Your task to perform on an android device: Open Google Chrome and click the shortcut for Amazon.com Image 0: 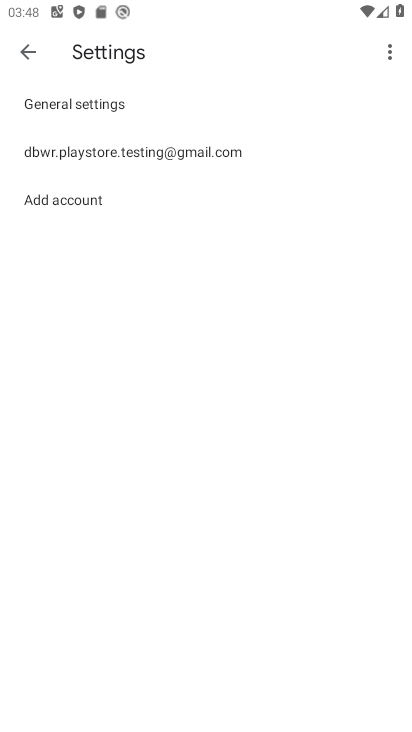
Step 0: press home button
Your task to perform on an android device: Open Google Chrome and click the shortcut for Amazon.com Image 1: 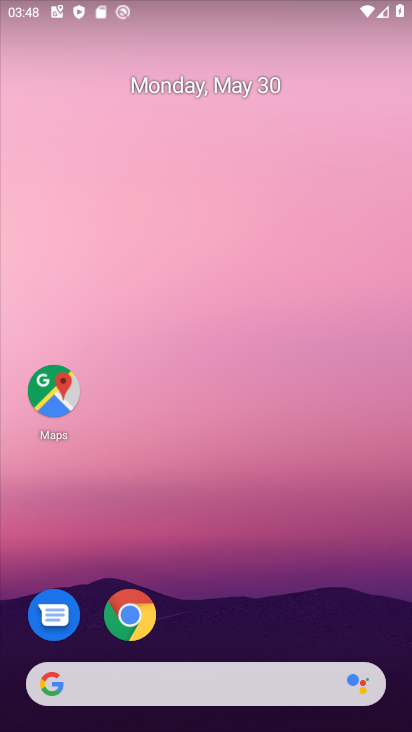
Step 1: click (131, 614)
Your task to perform on an android device: Open Google Chrome and click the shortcut for Amazon.com Image 2: 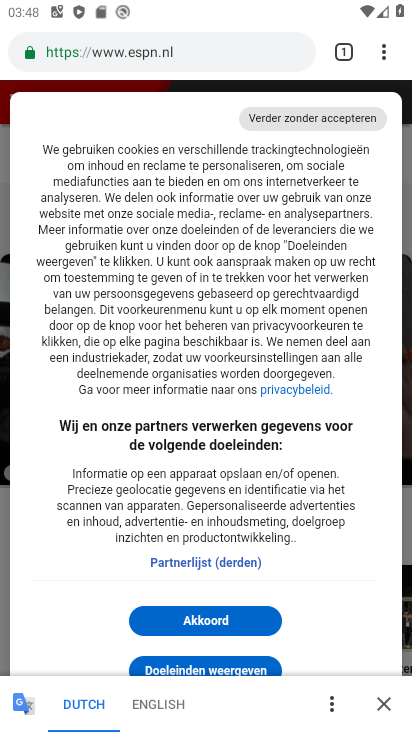
Step 2: click (265, 58)
Your task to perform on an android device: Open Google Chrome and click the shortcut for Amazon.com Image 3: 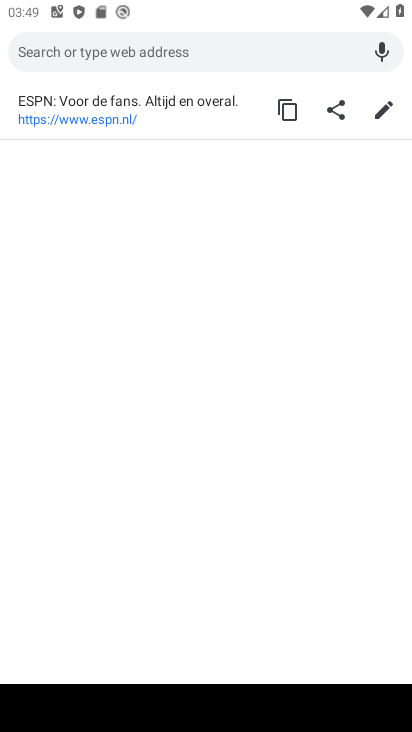
Step 3: type "Amazon.com"
Your task to perform on an android device: Open Google Chrome and click the shortcut for Amazon.com Image 4: 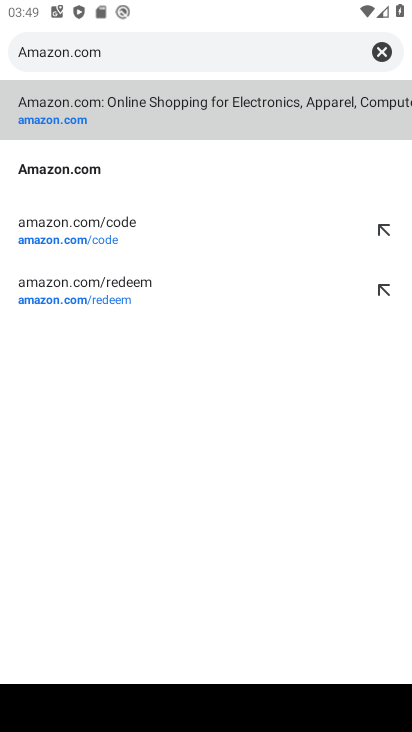
Step 4: click (72, 166)
Your task to perform on an android device: Open Google Chrome and click the shortcut for Amazon.com Image 5: 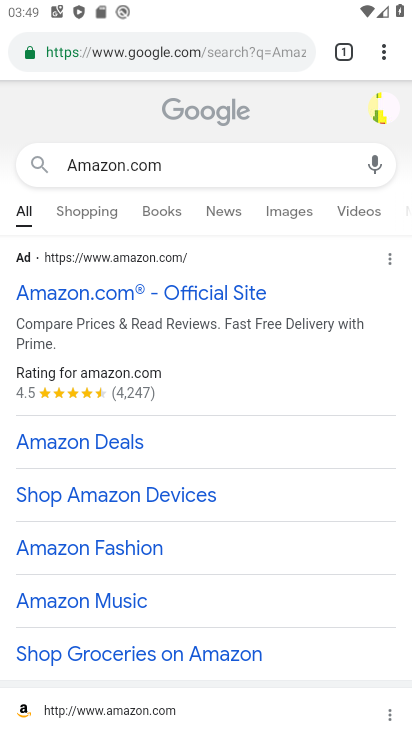
Step 5: click (114, 305)
Your task to perform on an android device: Open Google Chrome and click the shortcut for Amazon.com Image 6: 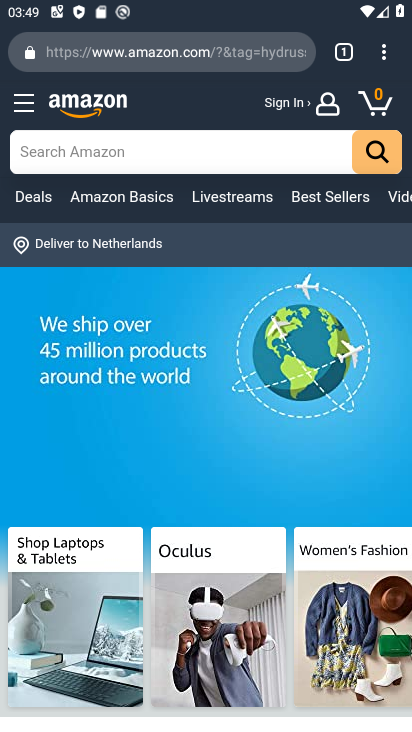
Step 6: click (384, 53)
Your task to perform on an android device: Open Google Chrome and click the shortcut for Amazon.com Image 7: 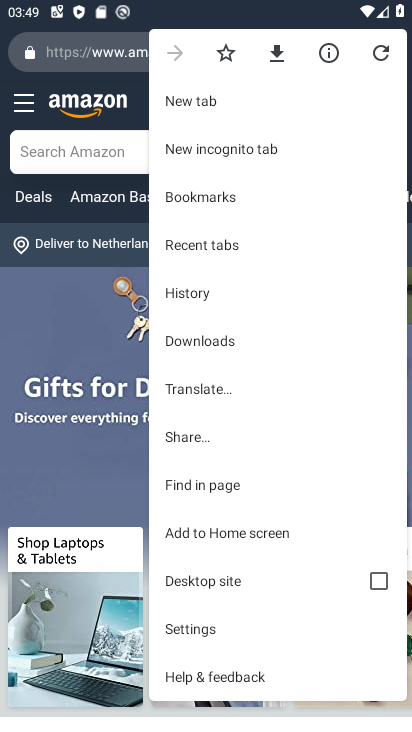
Step 7: click (229, 531)
Your task to perform on an android device: Open Google Chrome and click the shortcut for Amazon.com Image 8: 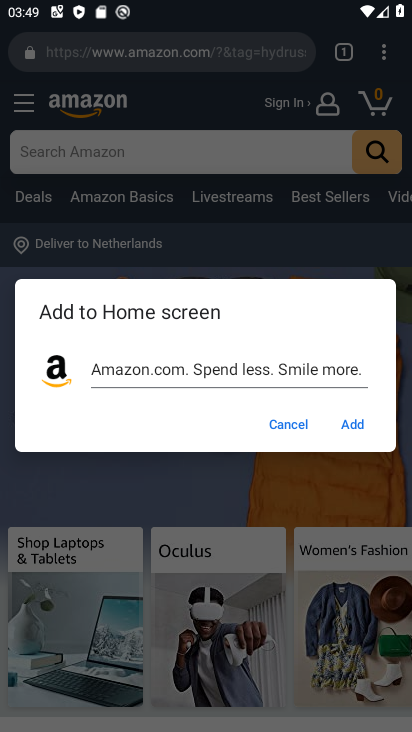
Step 8: click (352, 420)
Your task to perform on an android device: Open Google Chrome and click the shortcut for Amazon.com Image 9: 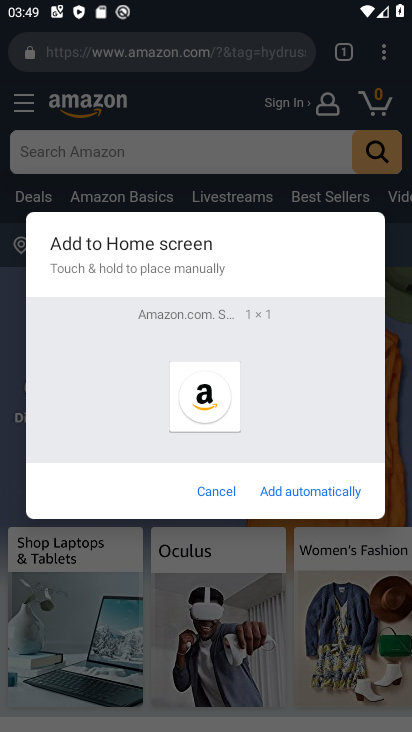
Step 9: click (312, 494)
Your task to perform on an android device: Open Google Chrome and click the shortcut for Amazon.com Image 10: 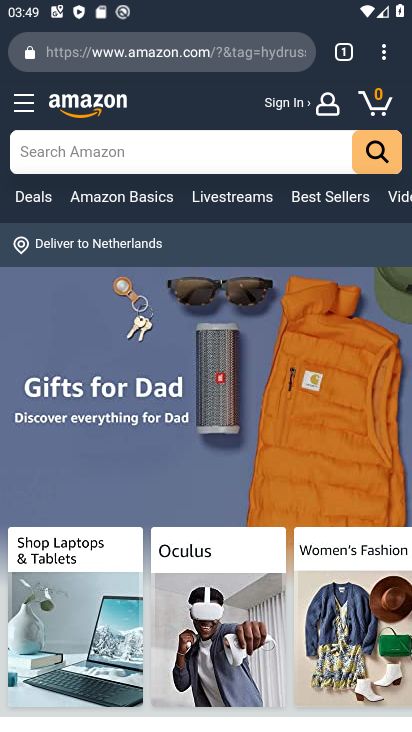
Step 10: task complete